Your task to perform on an android device: install app "Spotify: Music and Podcasts" Image 0: 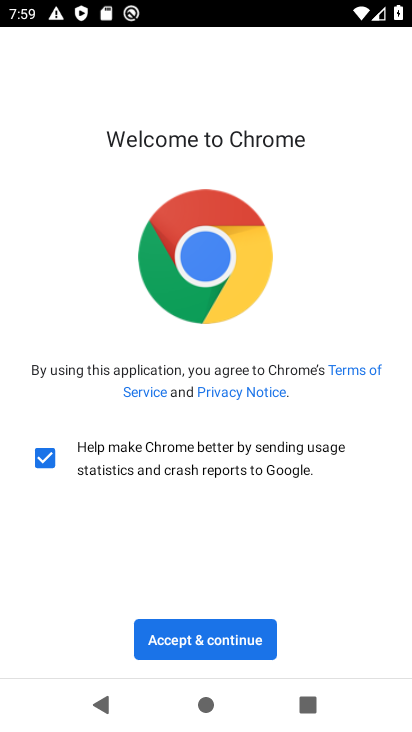
Step 0: press home button
Your task to perform on an android device: install app "Spotify: Music and Podcasts" Image 1: 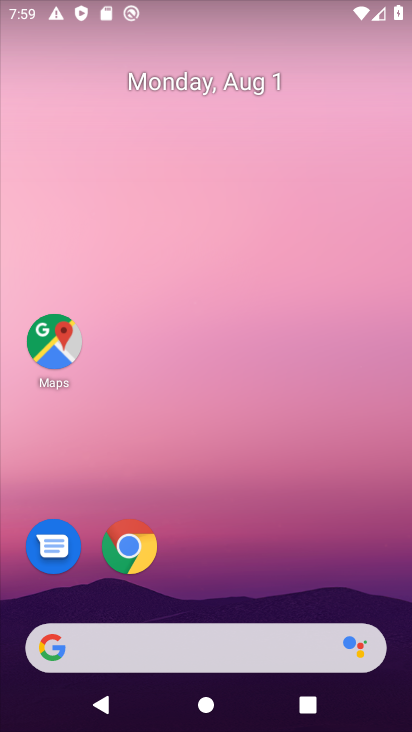
Step 1: drag from (301, 566) to (339, 96)
Your task to perform on an android device: install app "Spotify: Music and Podcasts" Image 2: 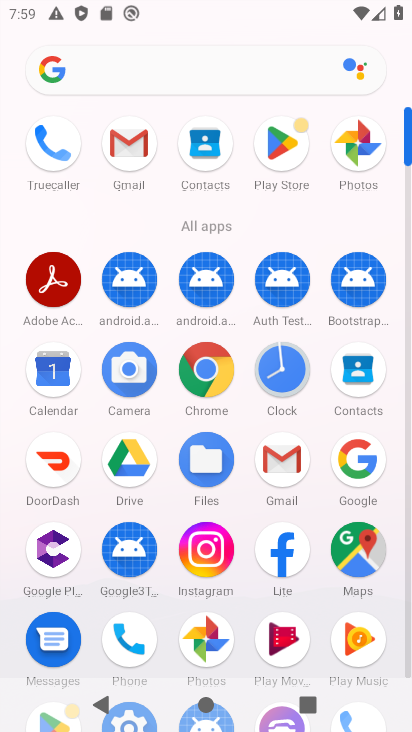
Step 2: click (280, 150)
Your task to perform on an android device: install app "Spotify: Music and Podcasts" Image 3: 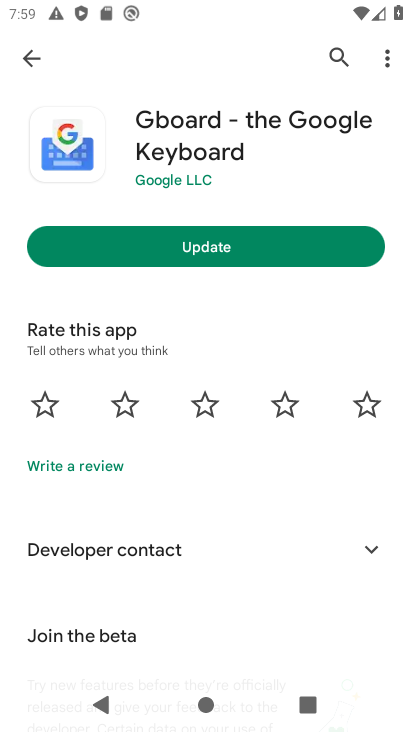
Step 3: click (33, 53)
Your task to perform on an android device: install app "Spotify: Music and Podcasts" Image 4: 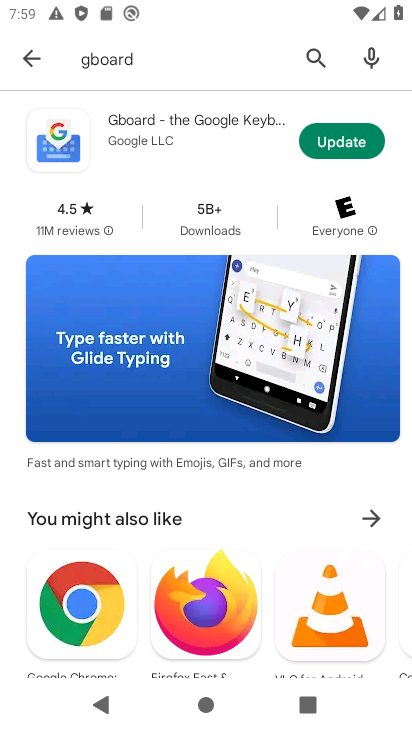
Step 4: click (162, 65)
Your task to perform on an android device: install app "Spotify: Music and Podcasts" Image 5: 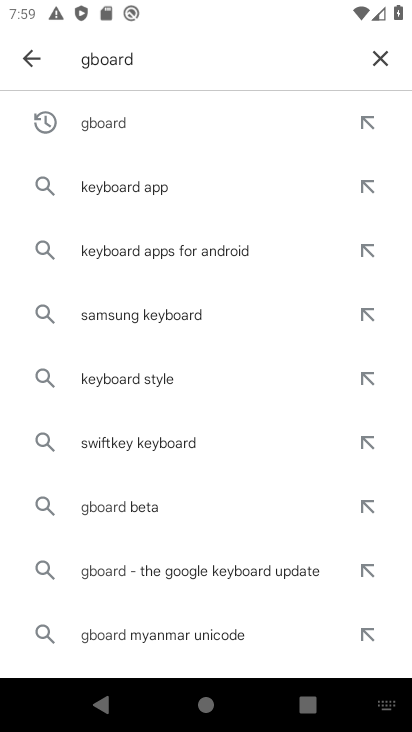
Step 5: click (379, 54)
Your task to perform on an android device: install app "Spotify: Music and Podcasts" Image 6: 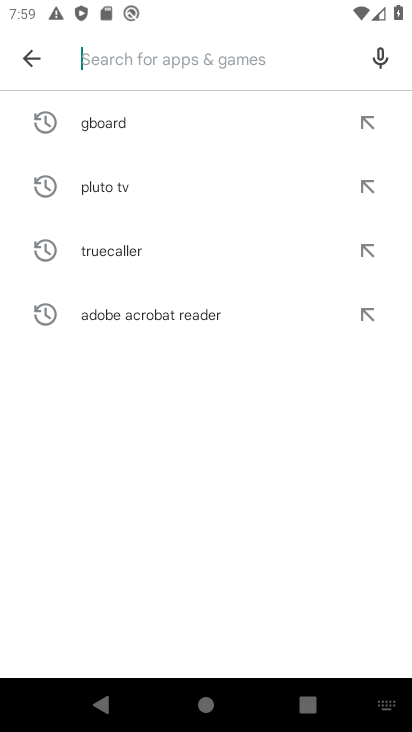
Step 6: type "spotify: music"
Your task to perform on an android device: install app "Spotify: Music and Podcasts" Image 7: 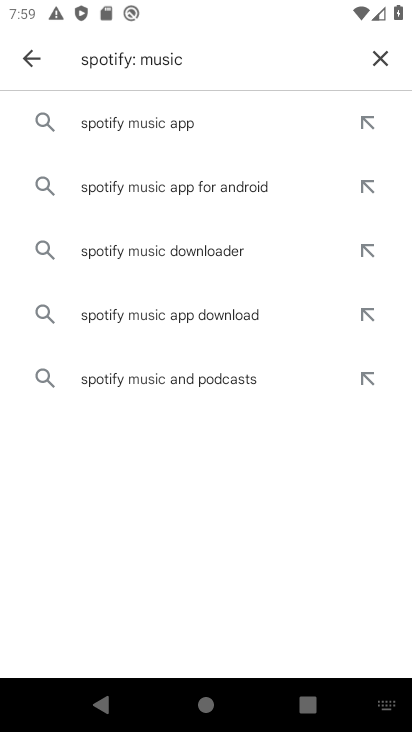
Step 7: click (190, 376)
Your task to perform on an android device: install app "Spotify: Music and Podcasts" Image 8: 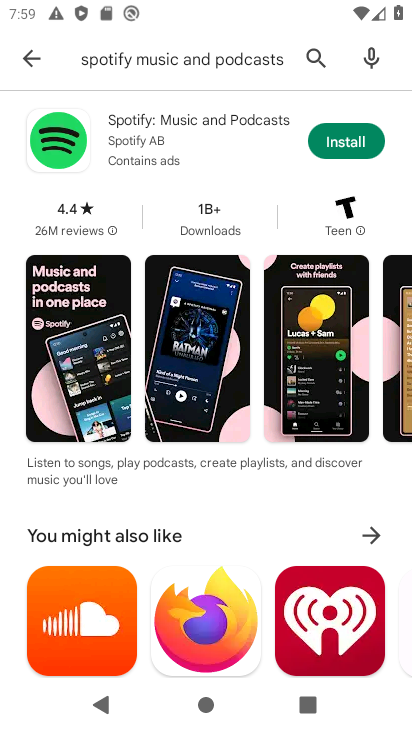
Step 8: click (355, 128)
Your task to perform on an android device: install app "Spotify: Music and Podcasts" Image 9: 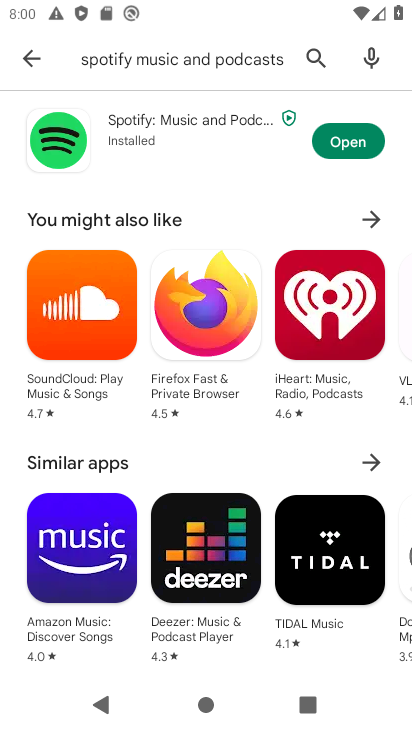
Step 9: task complete